Your task to perform on an android device: delete browsing data in the chrome app Image 0: 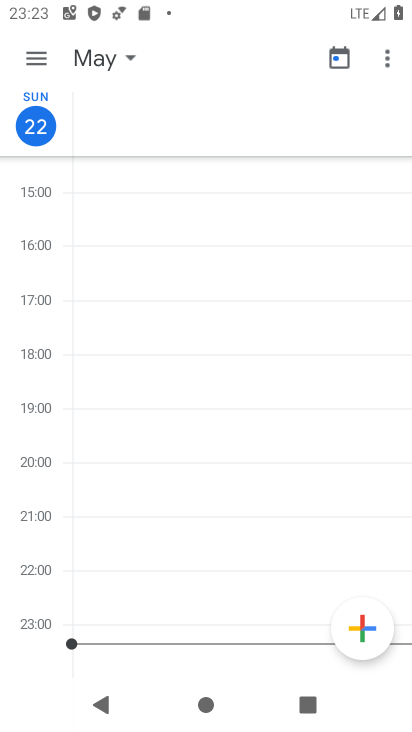
Step 0: drag from (212, 595) to (258, 214)
Your task to perform on an android device: delete browsing data in the chrome app Image 1: 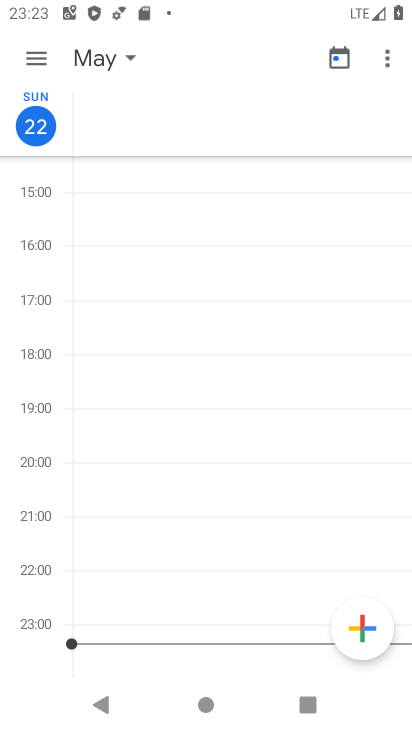
Step 1: press home button
Your task to perform on an android device: delete browsing data in the chrome app Image 2: 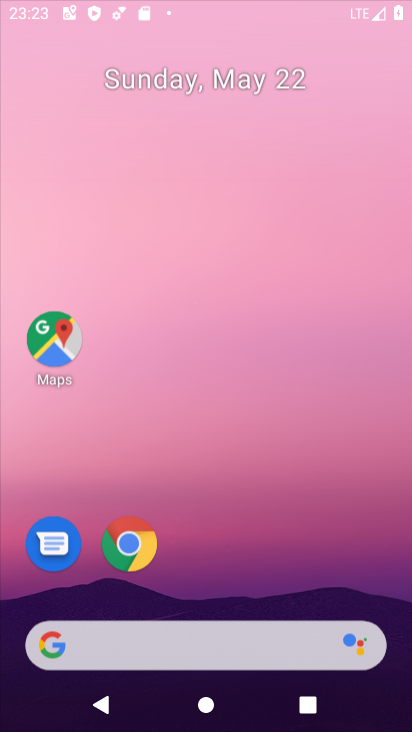
Step 2: drag from (242, 605) to (322, 21)
Your task to perform on an android device: delete browsing data in the chrome app Image 3: 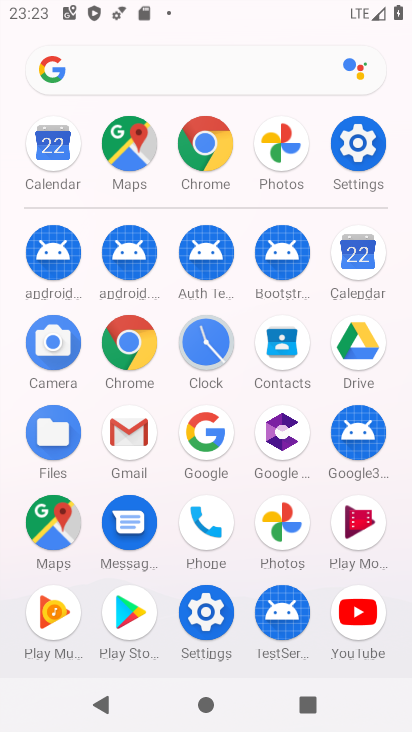
Step 3: click (124, 340)
Your task to perform on an android device: delete browsing data in the chrome app Image 4: 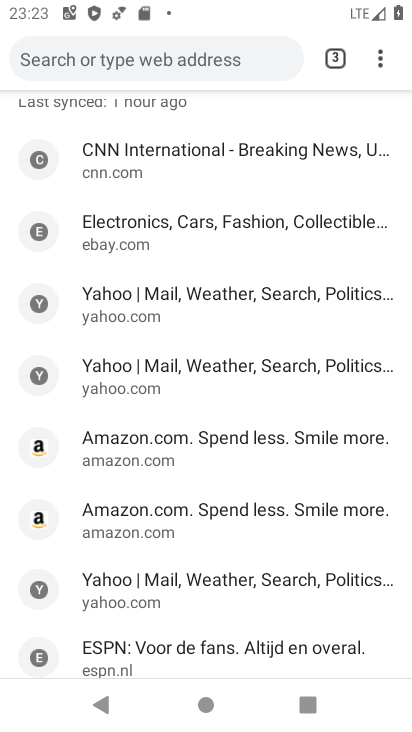
Step 4: drag from (195, 545) to (287, 232)
Your task to perform on an android device: delete browsing data in the chrome app Image 5: 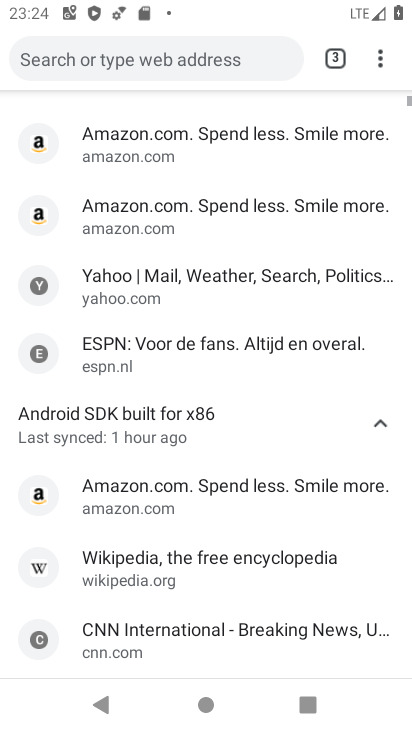
Step 5: drag from (279, 182) to (236, 724)
Your task to perform on an android device: delete browsing data in the chrome app Image 6: 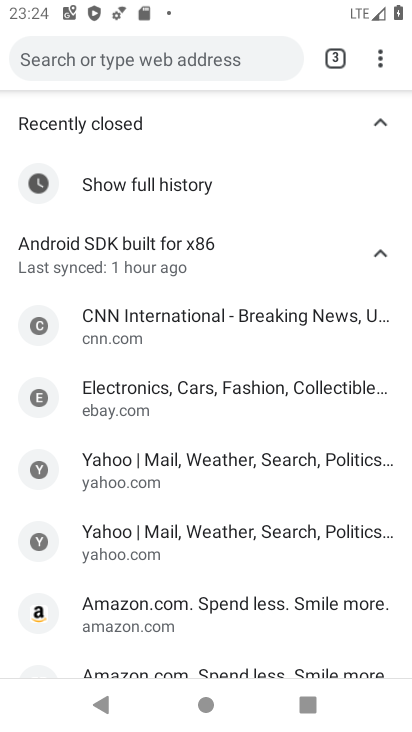
Step 6: click (375, 44)
Your task to perform on an android device: delete browsing data in the chrome app Image 7: 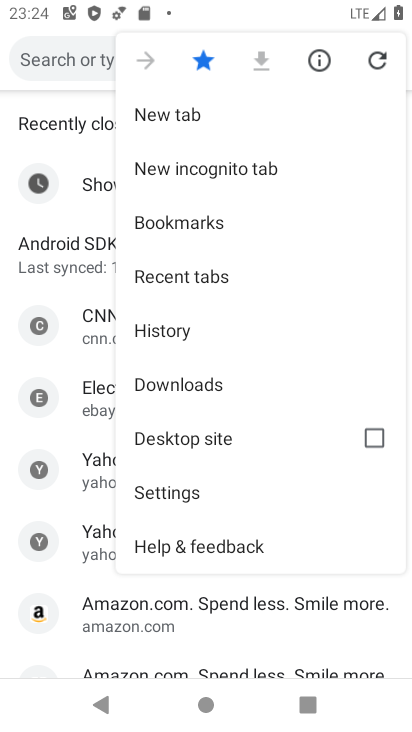
Step 7: click (200, 325)
Your task to perform on an android device: delete browsing data in the chrome app Image 8: 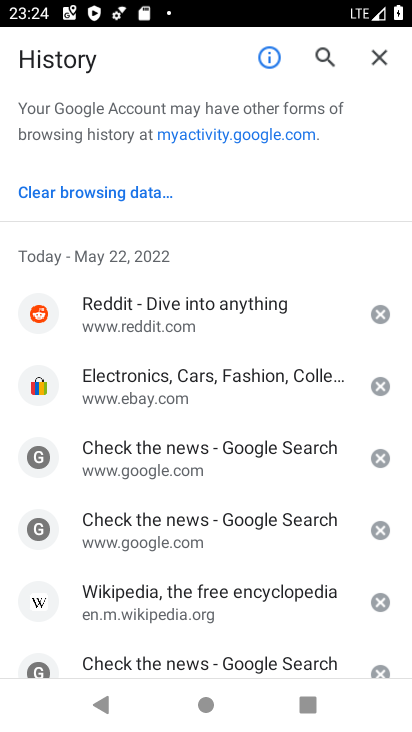
Step 8: click (66, 205)
Your task to perform on an android device: delete browsing data in the chrome app Image 9: 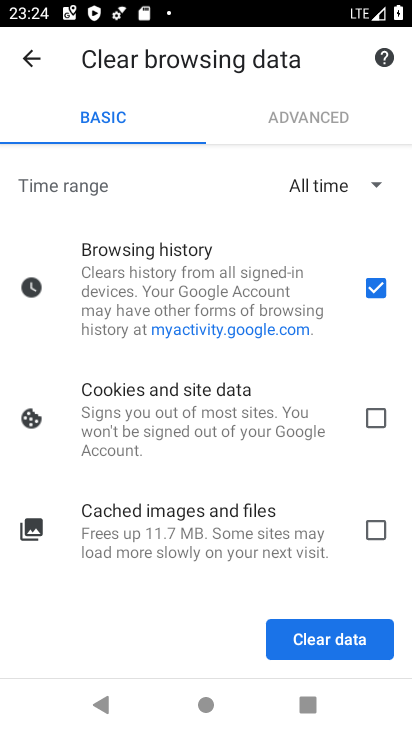
Step 9: click (316, 651)
Your task to perform on an android device: delete browsing data in the chrome app Image 10: 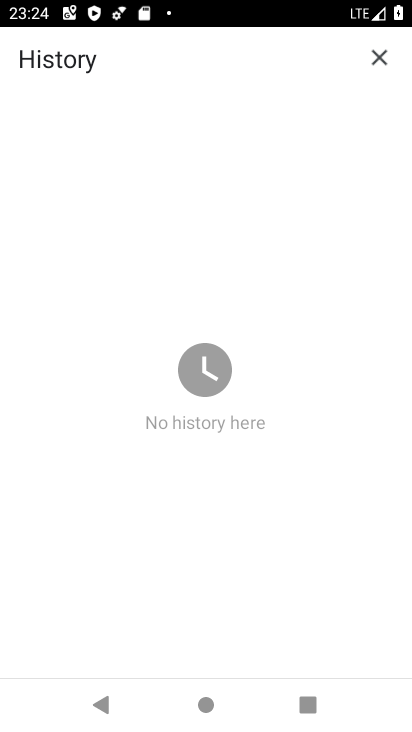
Step 10: task complete